Your task to perform on an android device: open chrome privacy settings Image 0: 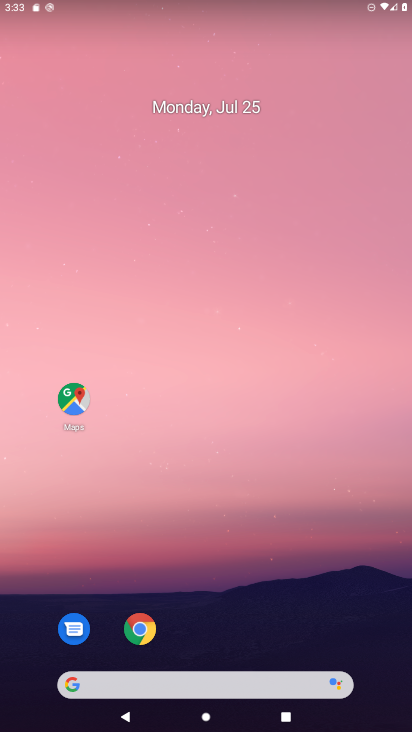
Step 0: click (144, 617)
Your task to perform on an android device: open chrome privacy settings Image 1: 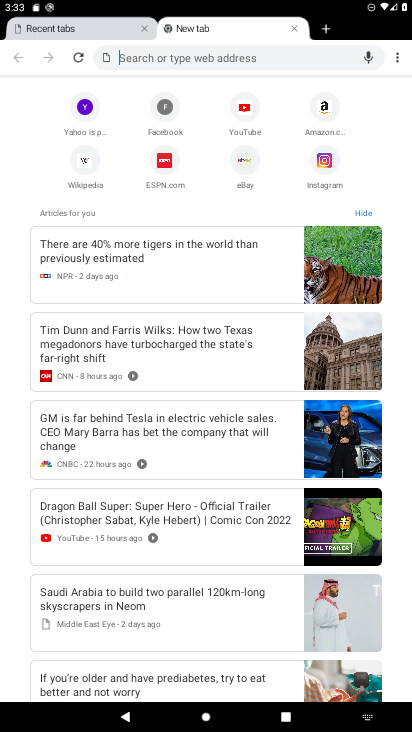
Step 1: click (393, 52)
Your task to perform on an android device: open chrome privacy settings Image 2: 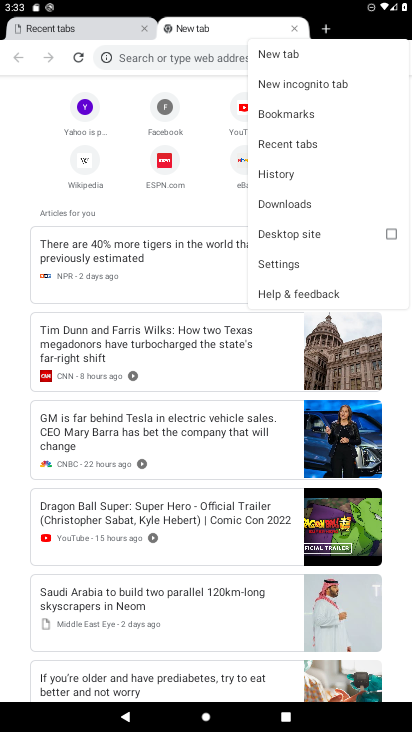
Step 2: click (279, 271)
Your task to perform on an android device: open chrome privacy settings Image 3: 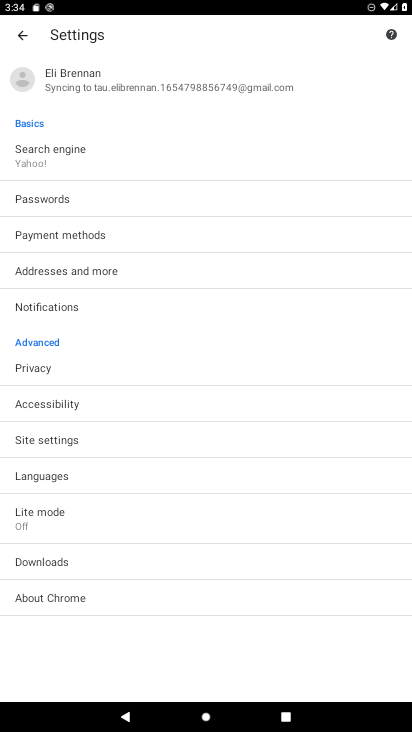
Step 3: click (37, 372)
Your task to perform on an android device: open chrome privacy settings Image 4: 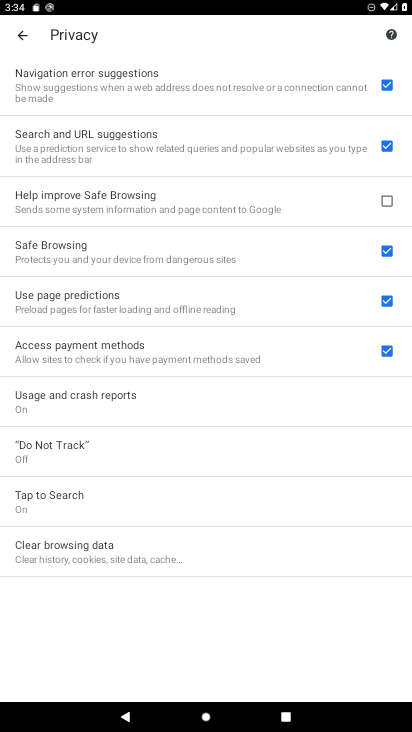
Step 4: task complete